Your task to perform on an android device: Open Google Chrome and click the shortcut for Amazon.com Image 0: 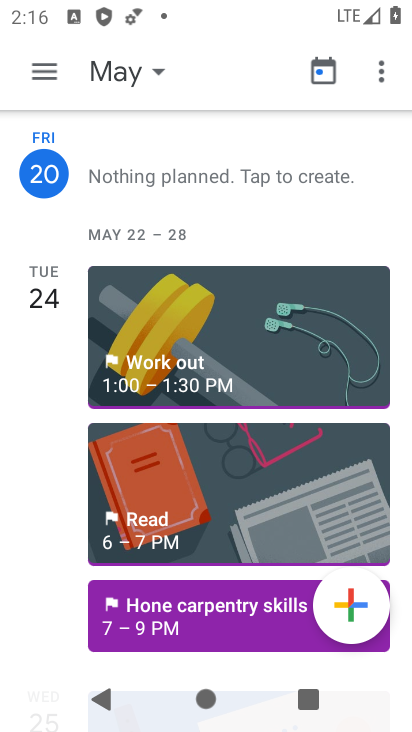
Step 0: press home button
Your task to perform on an android device: Open Google Chrome and click the shortcut for Amazon.com Image 1: 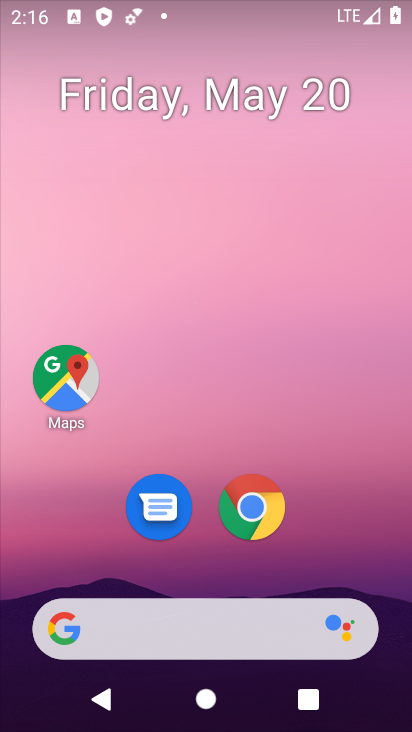
Step 1: click (250, 522)
Your task to perform on an android device: Open Google Chrome and click the shortcut for Amazon.com Image 2: 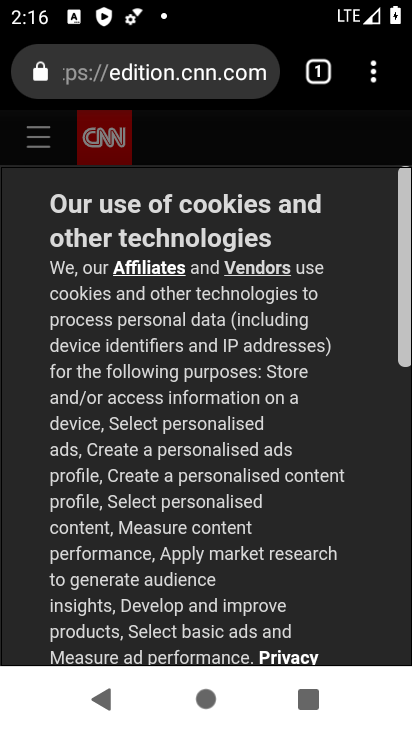
Step 2: click (315, 76)
Your task to perform on an android device: Open Google Chrome and click the shortcut for Amazon.com Image 3: 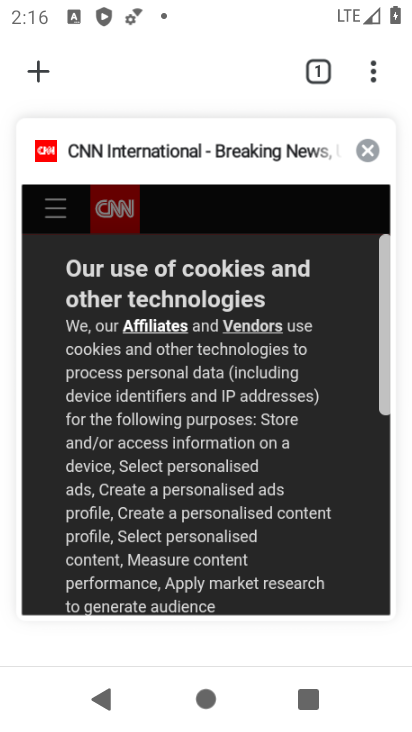
Step 3: click (36, 77)
Your task to perform on an android device: Open Google Chrome and click the shortcut for Amazon.com Image 4: 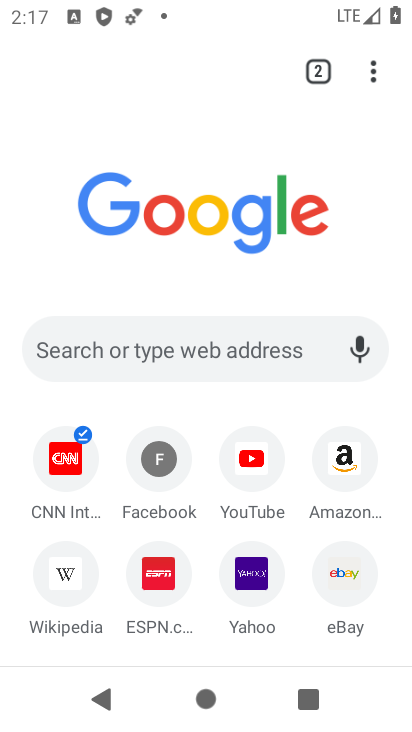
Step 4: click (346, 452)
Your task to perform on an android device: Open Google Chrome and click the shortcut for Amazon.com Image 5: 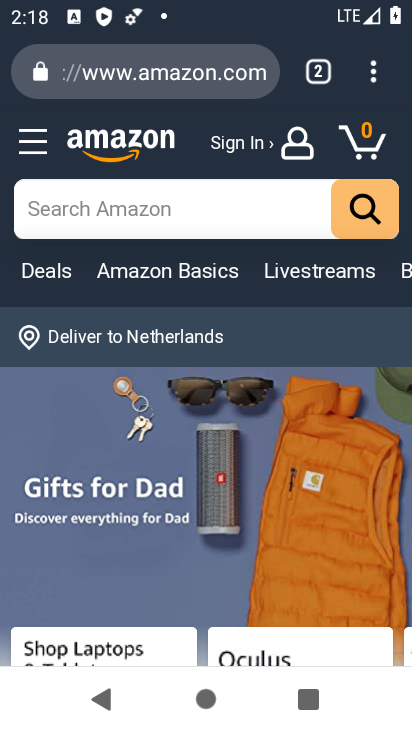
Step 5: task complete